Your task to perform on an android device: change the clock display to show seconds Image 0: 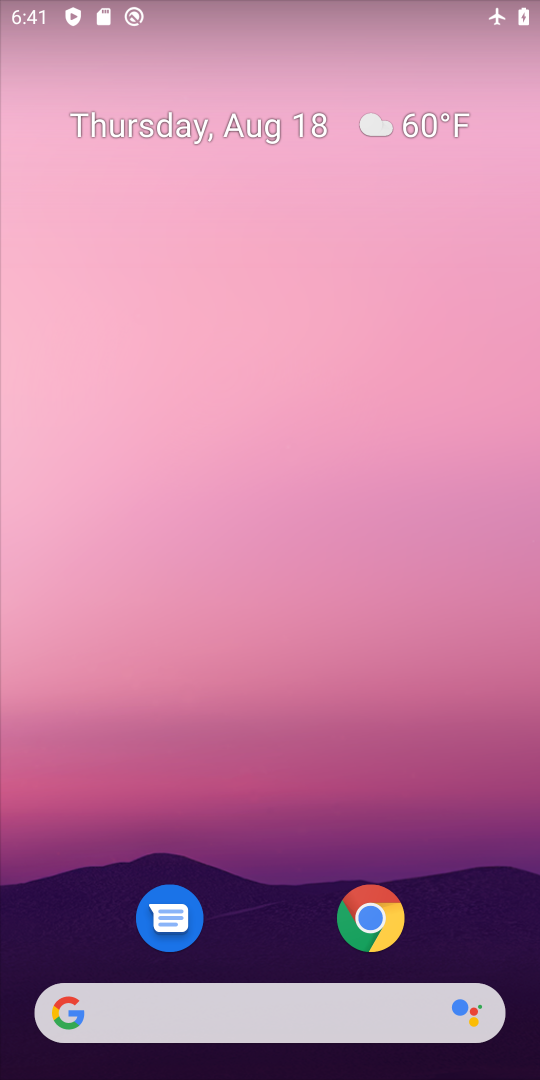
Step 0: drag from (280, 669) to (354, 36)
Your task to perform on an android device: change the clock display to show seconds Image 1: 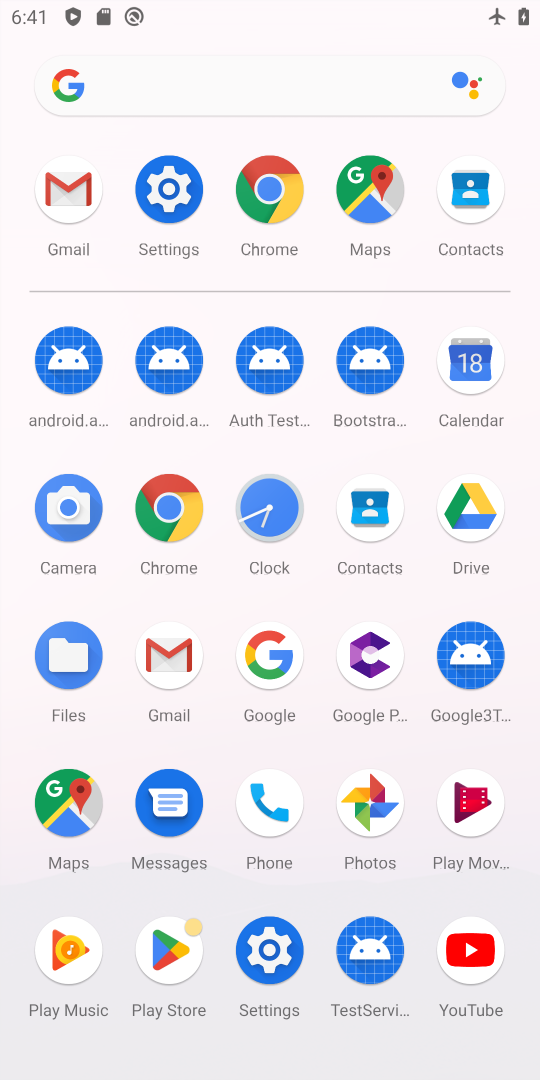
Step 1: click (269, 530)
Your task to perform on an android device: change the clock display to show seconds Image 2: 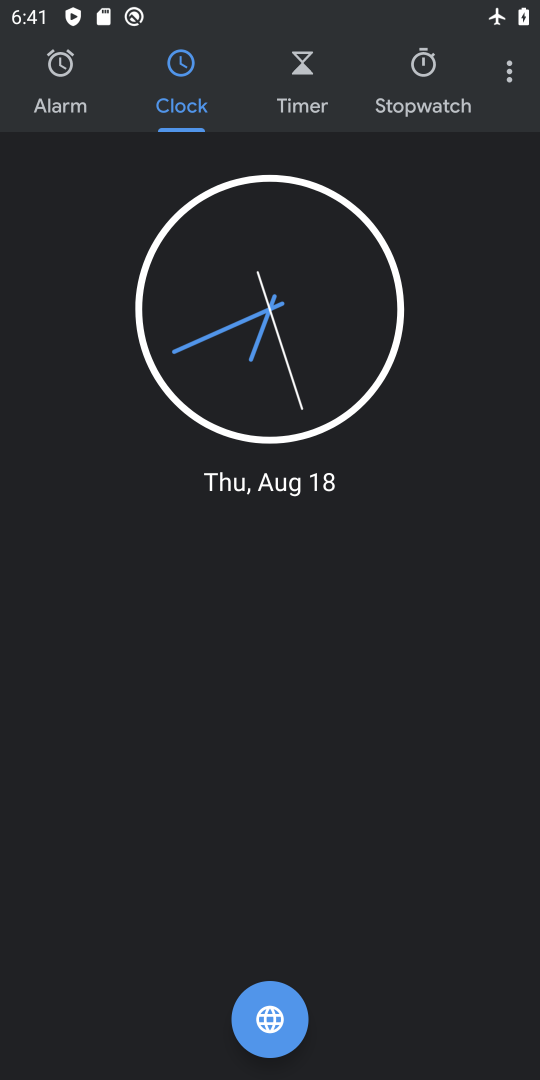
Step 2: click (509, 67)
Your task to perform on an android device: change the clock display to show seconds Image 3: 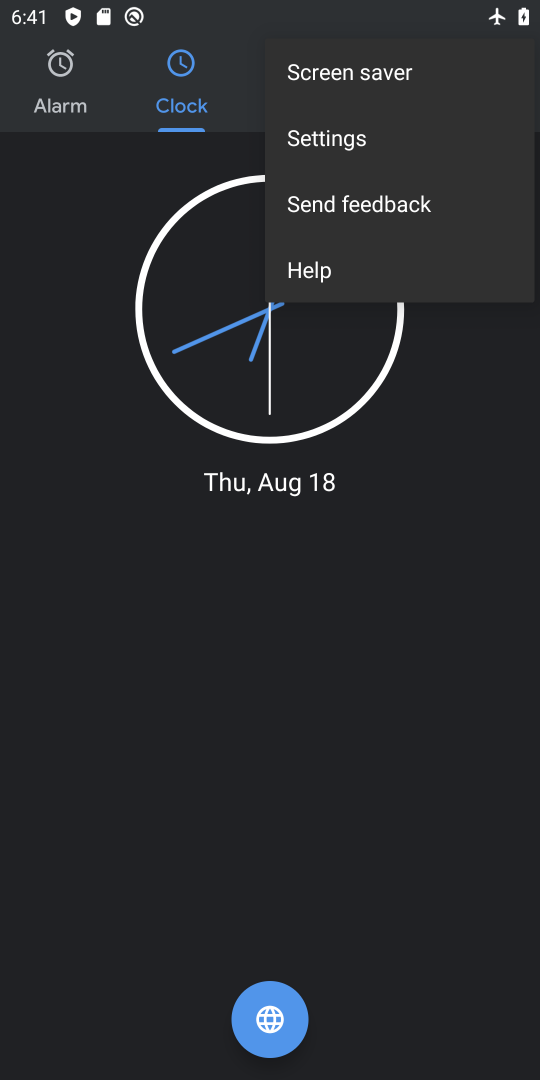
Step 3: click (326, 151)
Your task to perform on an android device: change the clock display to show seconds Image 4: 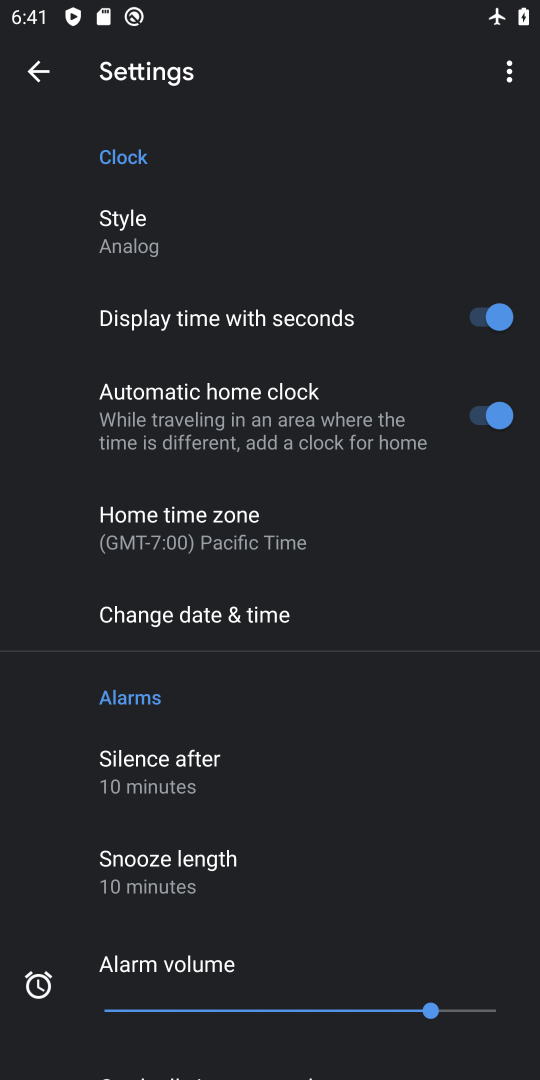
Step 4: task complete